Your task to perform on an android device: see sites visited before in the chrome app Image 0: 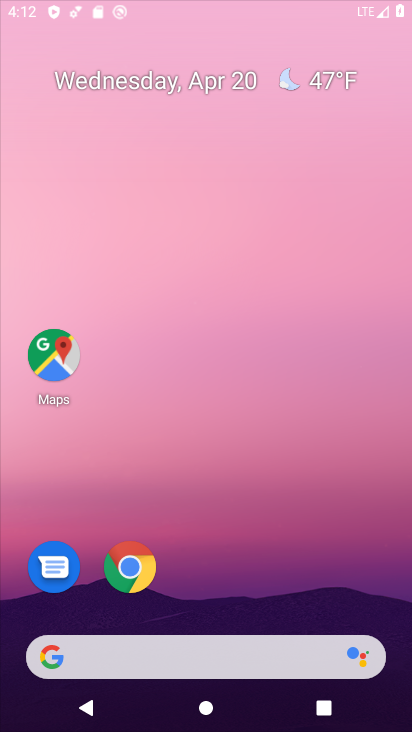
Step 0: drag from (289, 535) to (223, 69)
Your task to perform on an android device: see sites visited before in the chrome app Image 1: 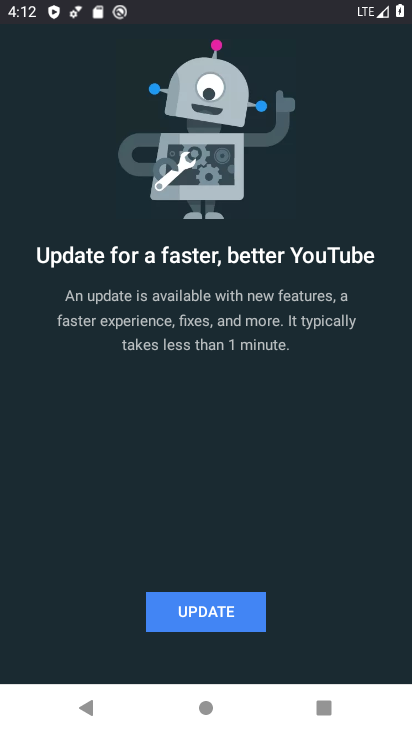
Step 1: press back button
Your task to perform on an android device: see sites visited before in the chrome app Image 2: 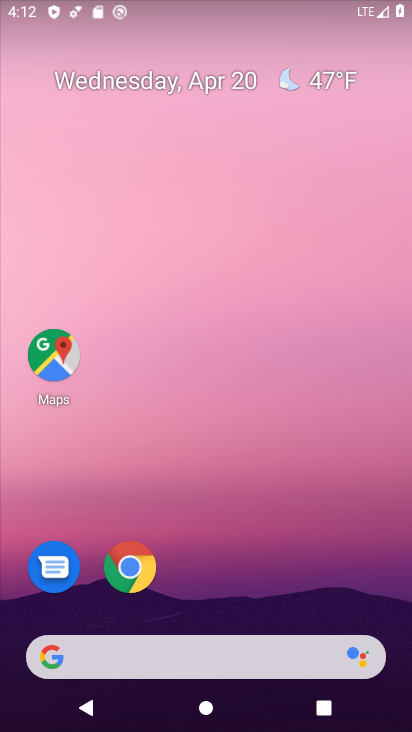
Step 2: click (127, 566)
Your task to perform on an android device: see sites visited before in the chrome app Image 3: 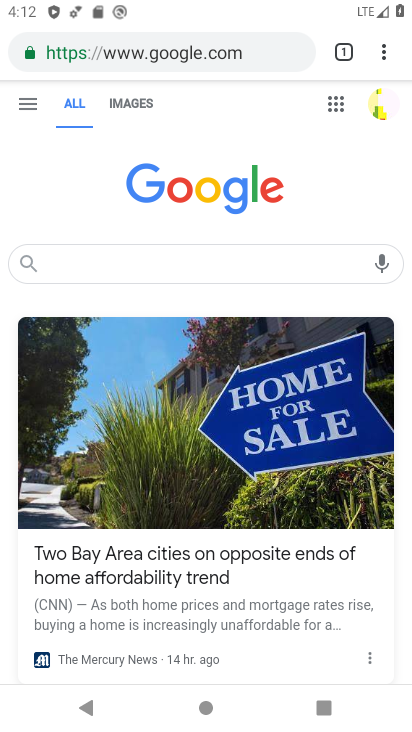
Step 3: drag from (380, 48) to (211, 605)
Your task to perform on an android device: see sites visited before in the chrome app Image 4: 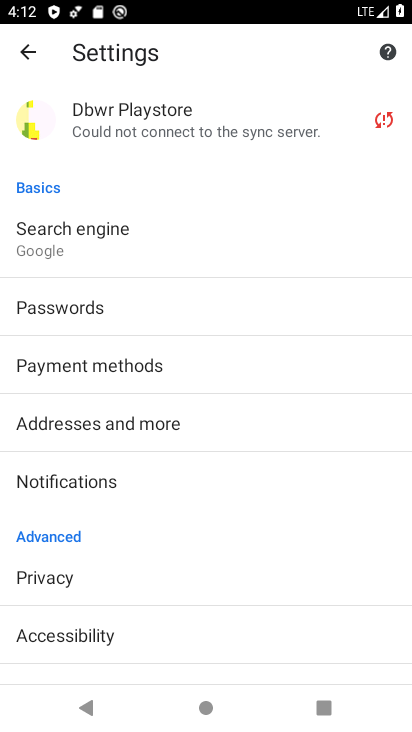
Step 4: drag from (278, 572) to (270, 267)
Your task to perform on an android device: see sites visited before in the chrome app Image 5: 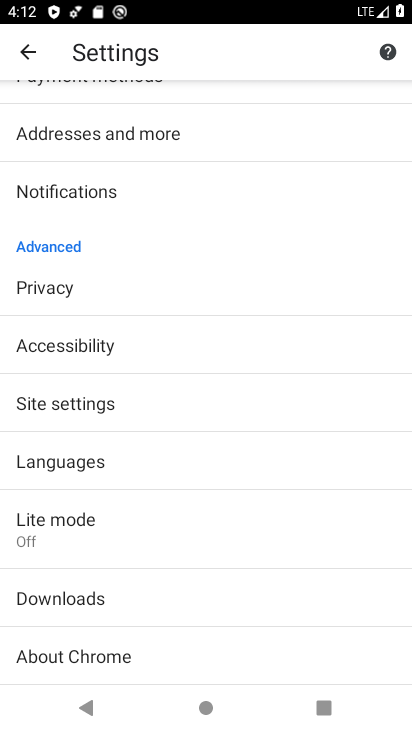
Step 5: drag from (221, 334) to (245, 210)
Your task to perform on an android device: see sites visited before in the chrome app Image 6: 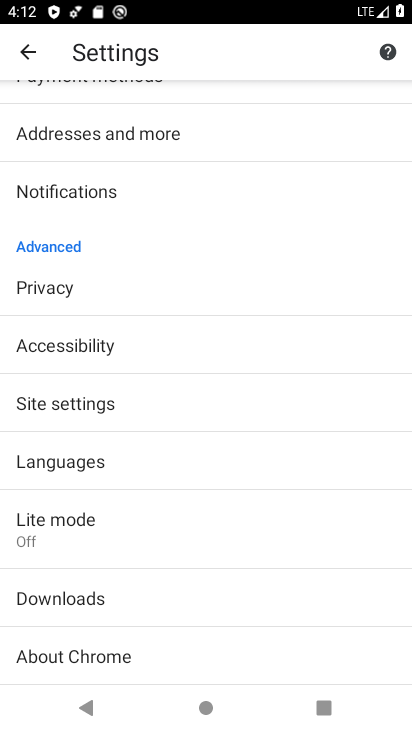
Step 6: drag from (166, 206) to (150, 409)
Your task to perform on an android device: see sites visited before in the chrome app Image 7: 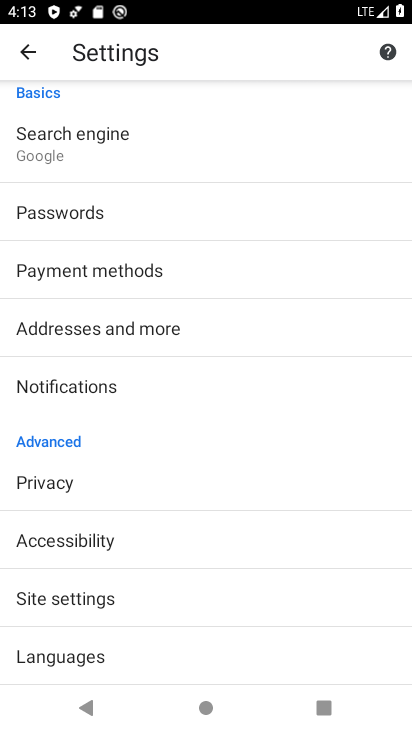
Step 7: drag from (150, 409) to (166, 206)
Your task to perform on an android device: see sites visited before in the chrome app Image 8: 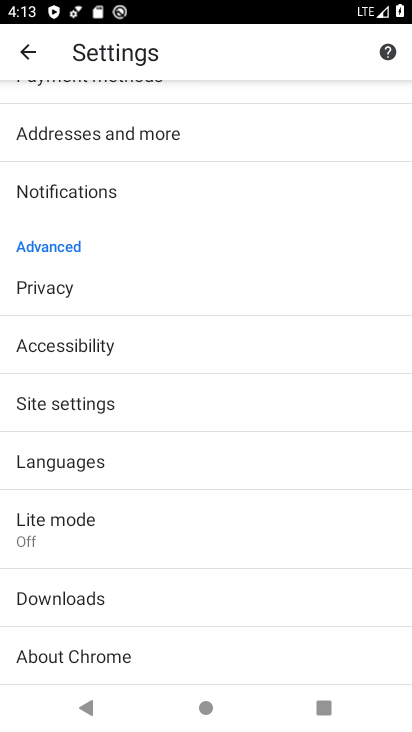
Step 8: click (36, 49)
Your task to perform on an android device: see sites visited before in the chrome app Image 9: 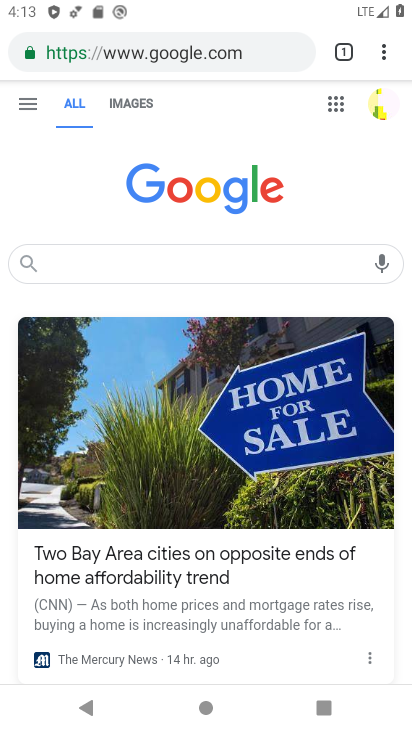
Step 9: task complete